Your task to perform on an android device: turn off smart reply in the gmail app Image 0: 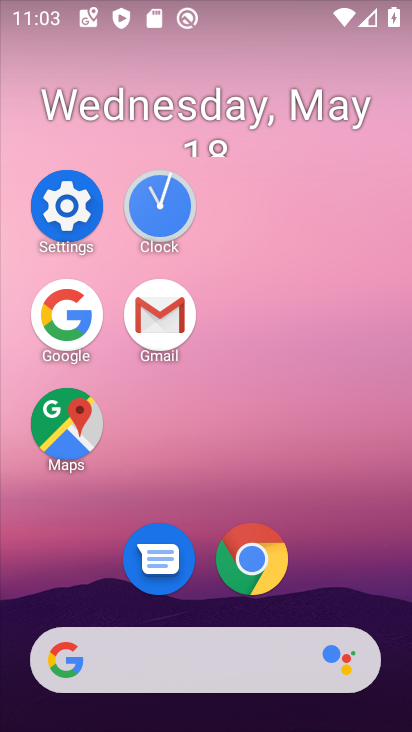
Step 0: click (153, 322)
Your task to perform on an android device: turn off smart reply in the gmail app Image 1: 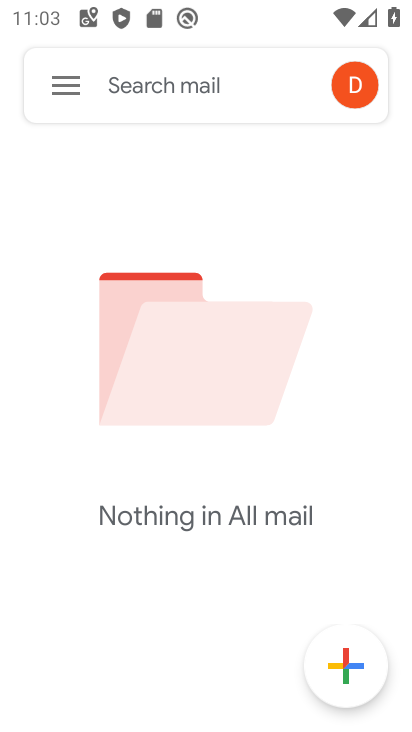
Step 1: click (64, 102)
Your task to perform on an android device: turn off smart reply in the gmail app Image 2: 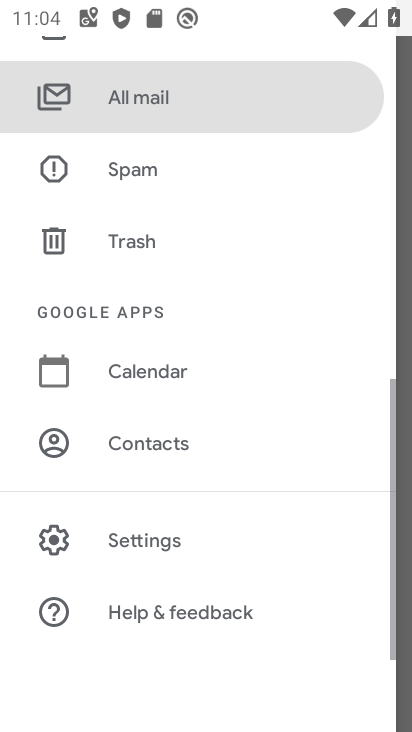
Step 2: drag from (229, 574) to (218, 211)
Your task to perform on an android device: turn off smart reply in the gmail app Image 3: 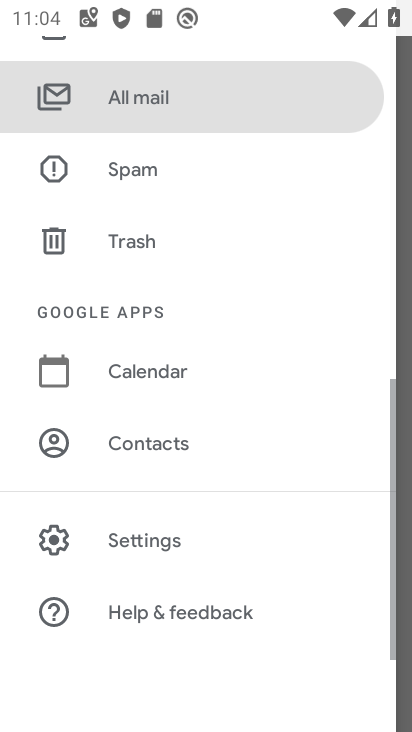
Step 3: click (191, 535)
Your task to perform on an android device: turn off smart reply in the gmail app Image 4: 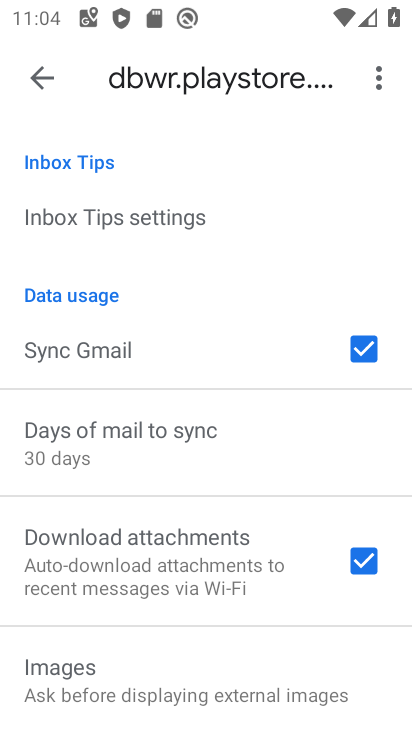
Step 4: task complete